Your task to perform on an android device: open device folders in google photos Image 0: 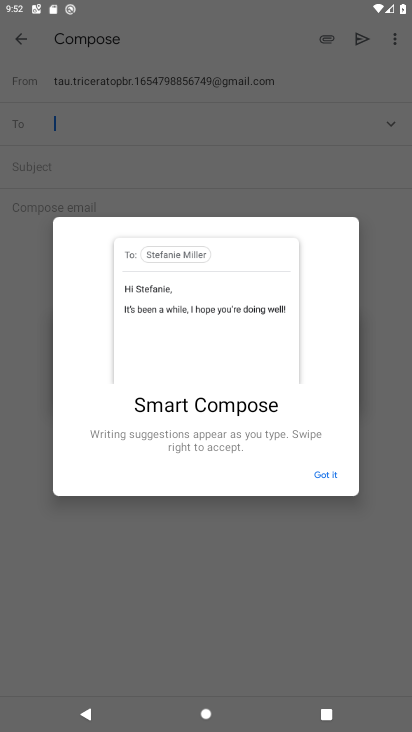
Step 0: press home button
Your task to perform on an android device: open device folders in google photos Image 1: 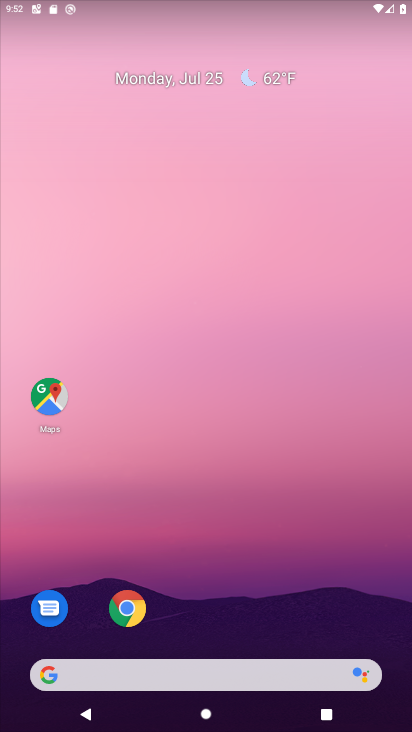
Step 1: drag from (204, 626) to (220, 9)
Your task to perform on an android device: open device folders in google photos Image 2: 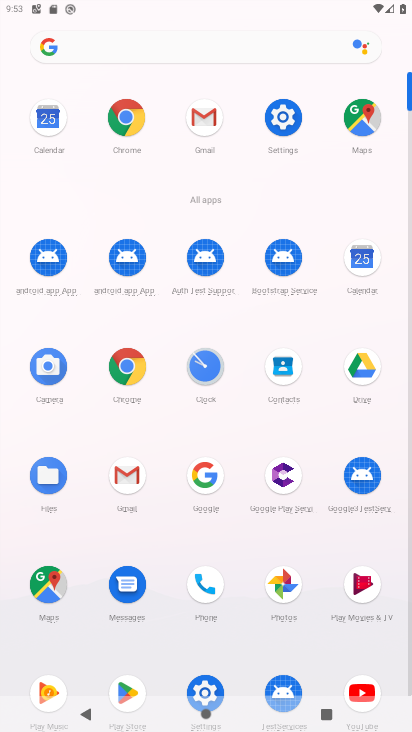
Step 2: click (280, 586)
Your task to perform on an android device: open device folders in google photos Image 3: 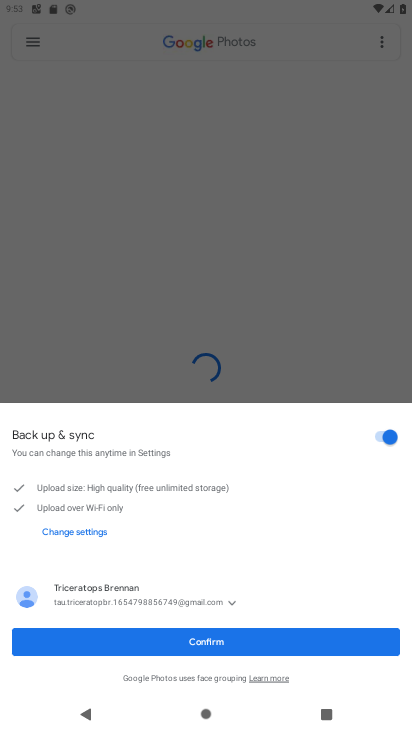
Step 3: click (211, 640)
Your task to perform on an android device: open device folders in google photos Image 4: 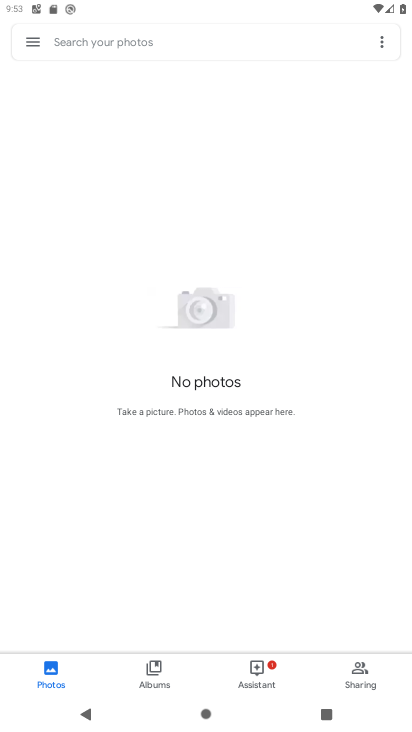
Step 4: click (25, 38)
Your task to perform on an android device: open device folders in google photos Image 5: 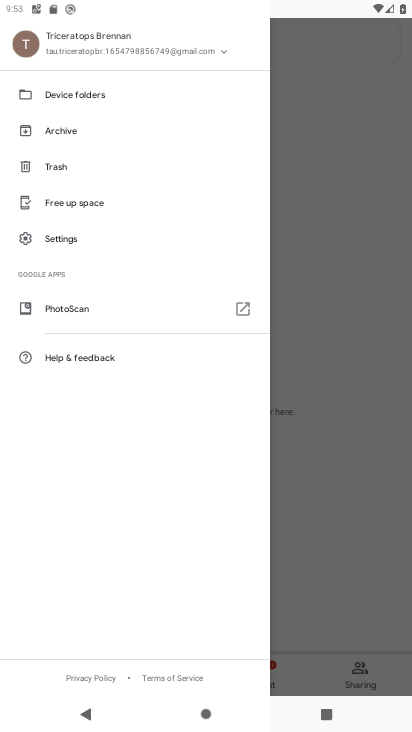
Step 5: click (87, 90)
Your task to perform on an android device: open device folders in google photos Image 6: 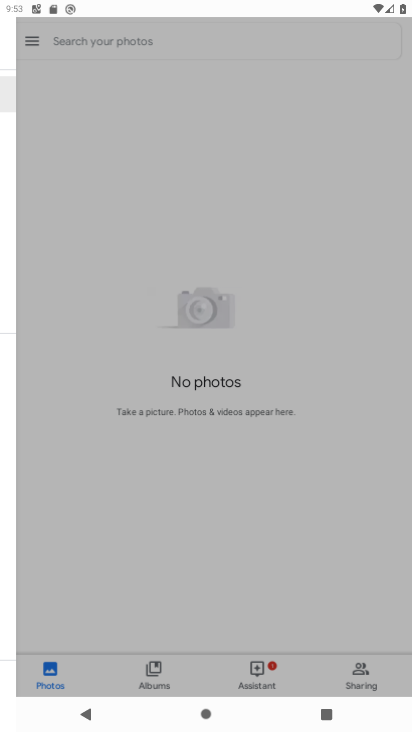
Step 6: click (87, 90)
Your task to perform on an android device: open device folders in google photos Image 7: 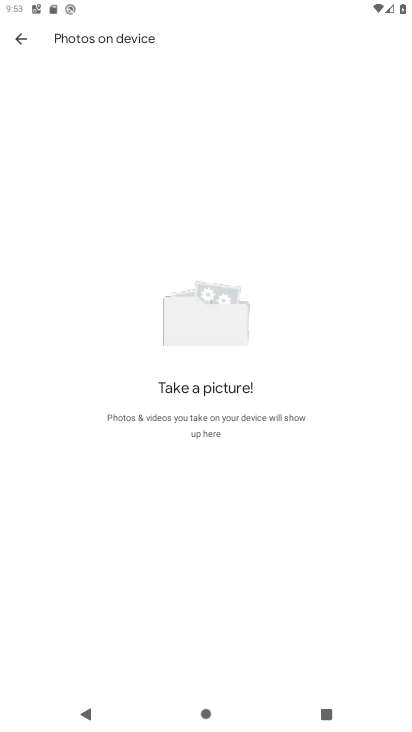
Step 7: task complete